Your task to perform on an android device: turn on location history Image 0: 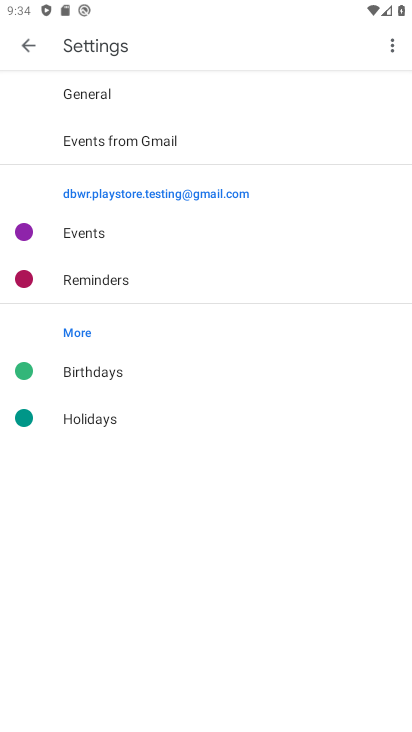
Step 0: press home button
Your task to perform on an android device: turn on location history Image 1: 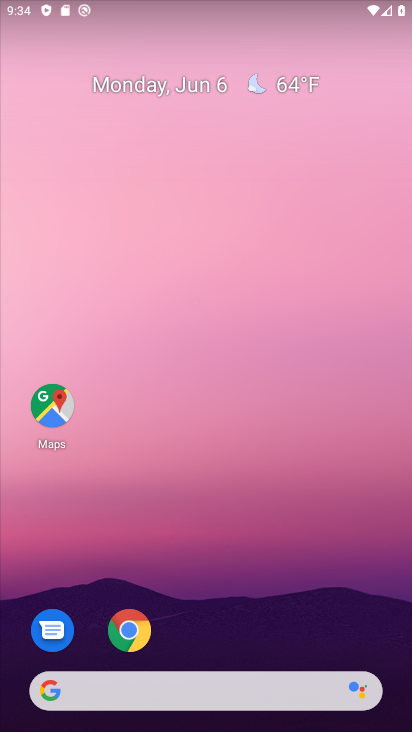
Step 1: drag from (136, 719) to (96, 268)
Your task to perform on an android device: turn on location history Image 2: 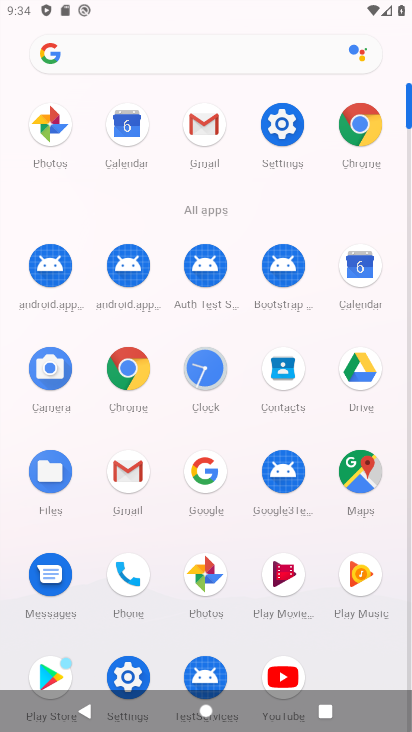
Step 2: click (281, 136)
Your task to perform on an android device: turn on location history Image 3: 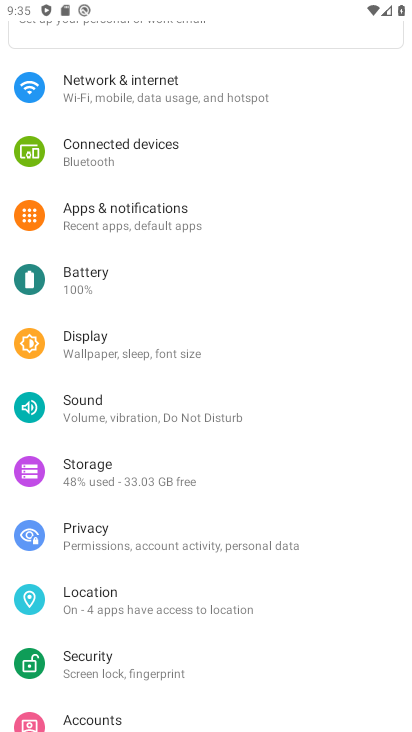
Step 3: click (88, 595)
Your task to perform on an android device: turn on location history Image 4: 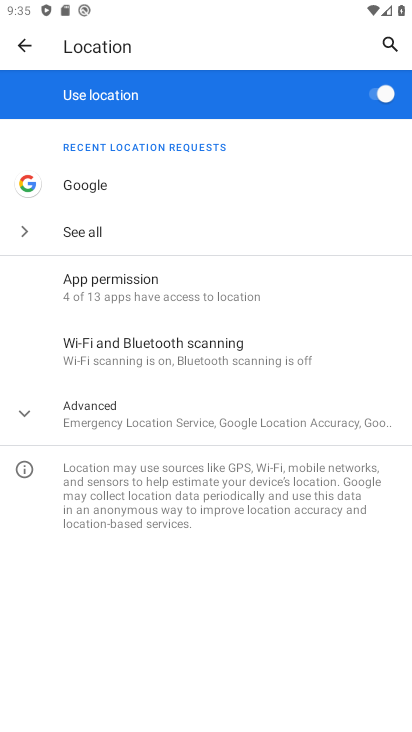
Step 4: click (157, 428)
Your task to perform on an android device: turn on location history Image 5: 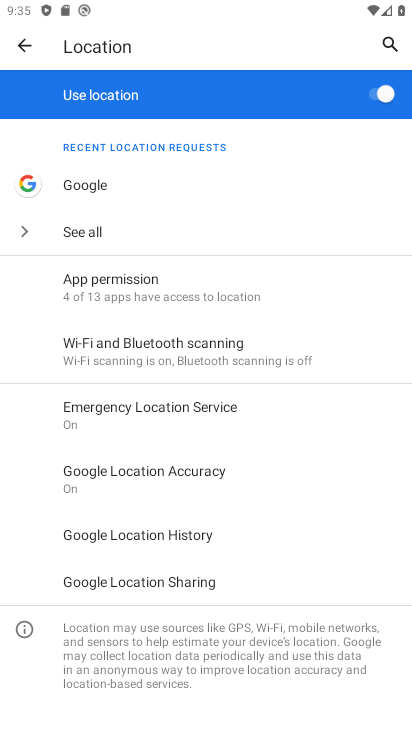
Step 5: click (168, 545)
Your task to perform on an android device: turn on location history Image 6: 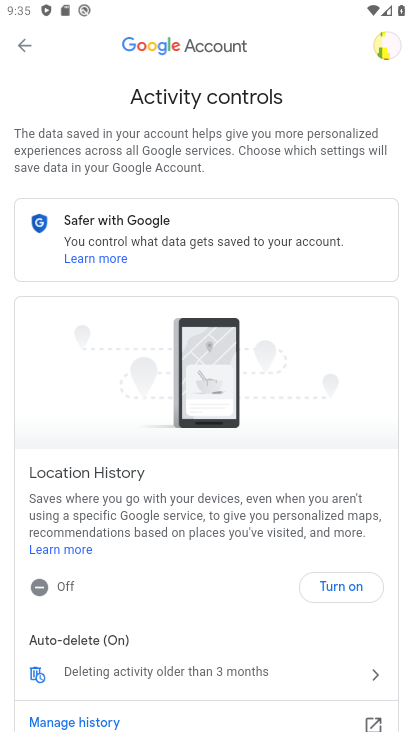
Step 6: click (351, 586)
Your task to perform on an android device: turn on location history Image 7: 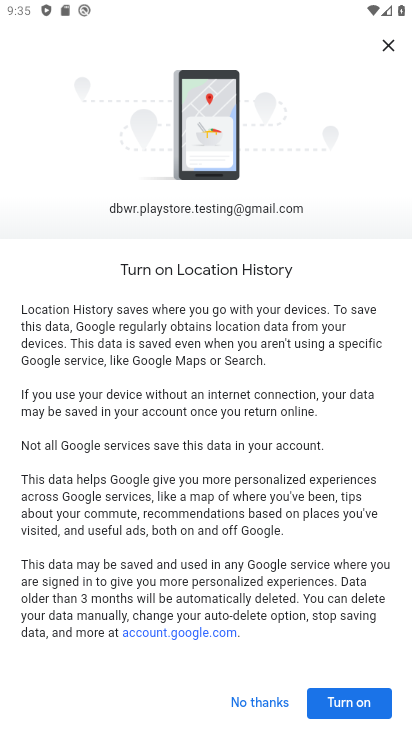
Step 7: click (341, 707)
Your task to perform on an android device: turn on location history Image 8: 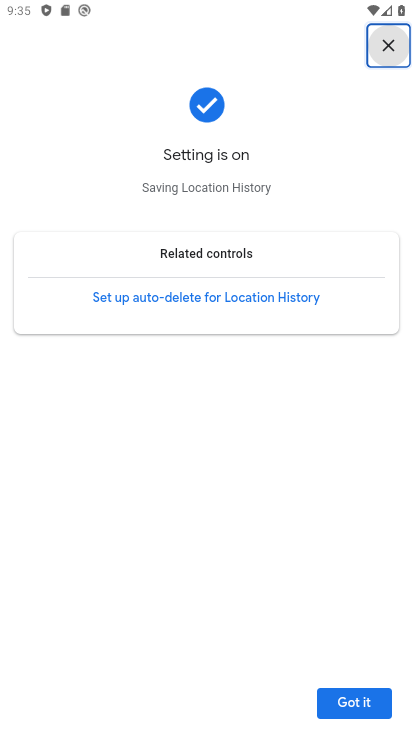
Step 8: click (335, 707)
Your task to perform on an android device: turn on location history Image 9: 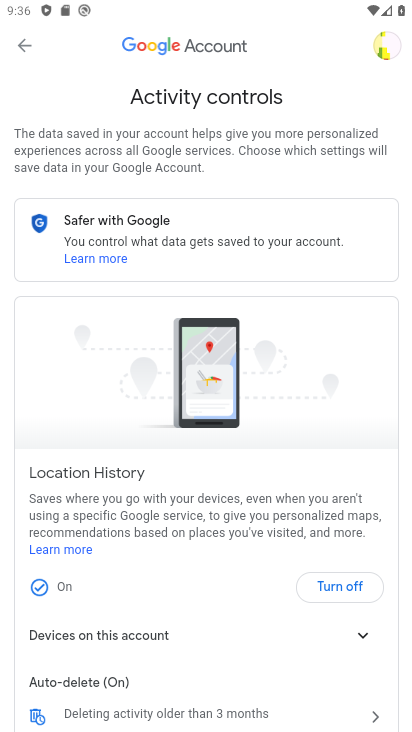
Step 9: task complete